Your task to perform on an android device: Open display settings Image 0: 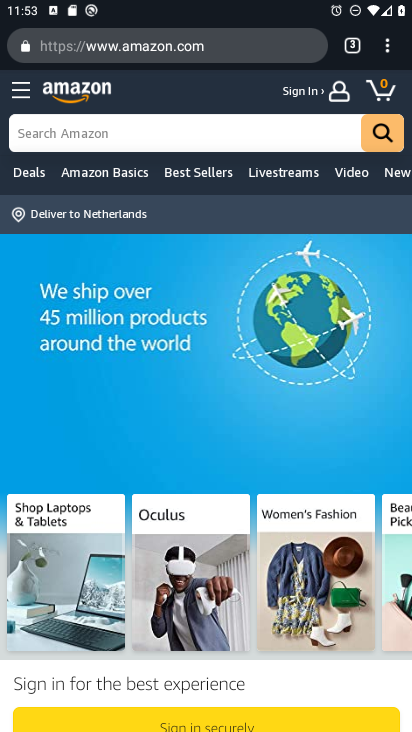
Step 0: press home button
Your task to perform on an android device: Open display settings Image 1: 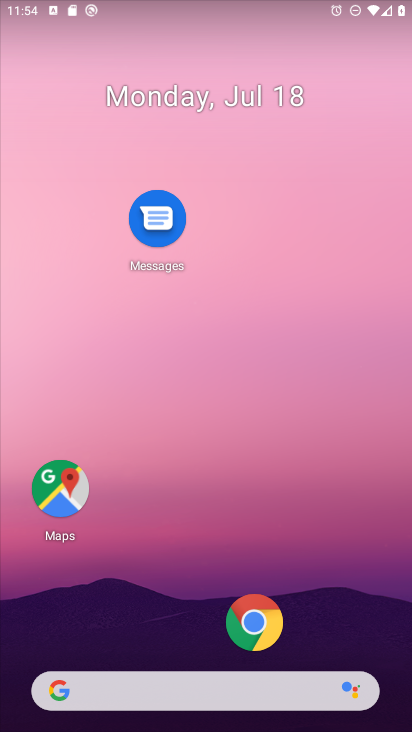
Step 1: drag from (222, 563) to (227, 116)
Your task to perform on an android device: Open display settings Image 2: 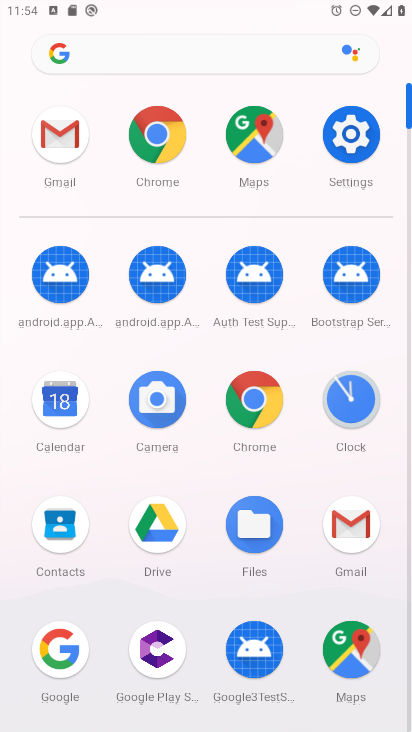
Step 2: click (363, 144)
Your task to perform on an android device: Open display settings Image 3: 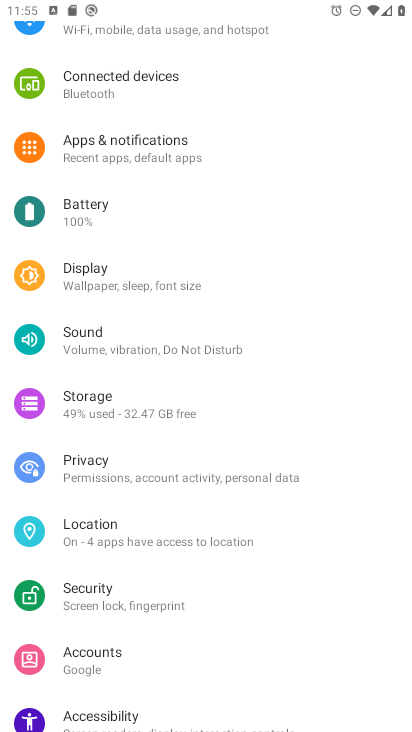
Step 3: drag from (243, 570) to (266, 723)
Your task to perform on an android device: Open display settings Image 4: 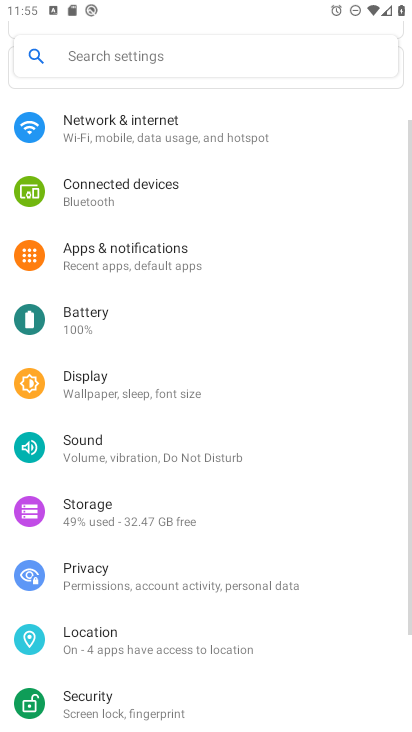
Step 4: drag from (177, 306) to (219, 698)
Your task to perform on an android device: Open display settings Image 5: 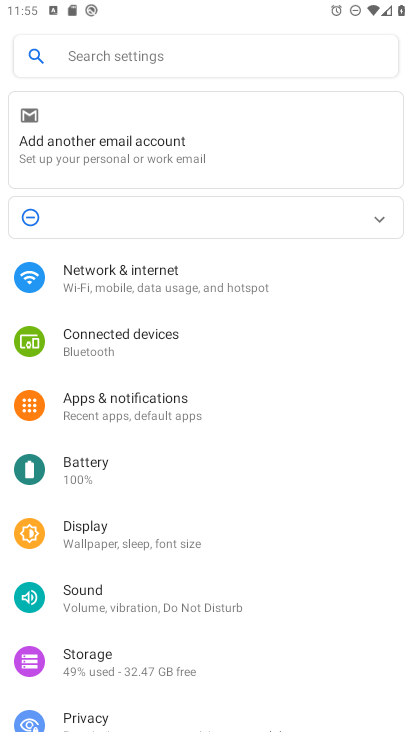
Step 5: click (111, 540)
Your task to perform on an android device: Open display settings Image 6: 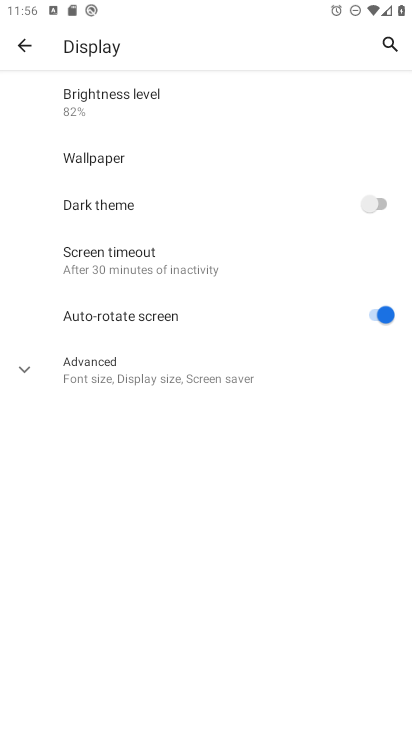
Step 6: click (155, 380)
Your task to perform on an android device: Open display settings Image 7: 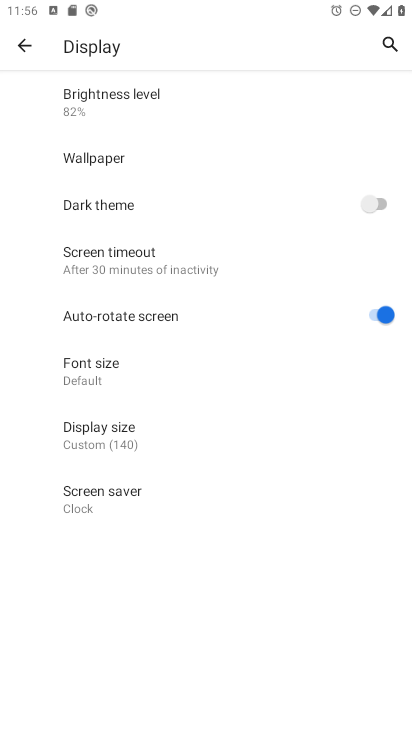
Step 7: task complete